Your task to perform on an android device: Go to Google maps Image 0: 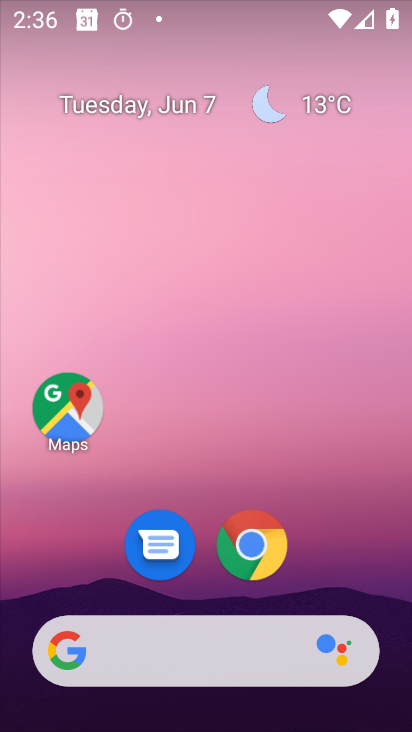
Step 0: click (77, 400)
Your task to perform on an android device: Go to Google maps Image 1: 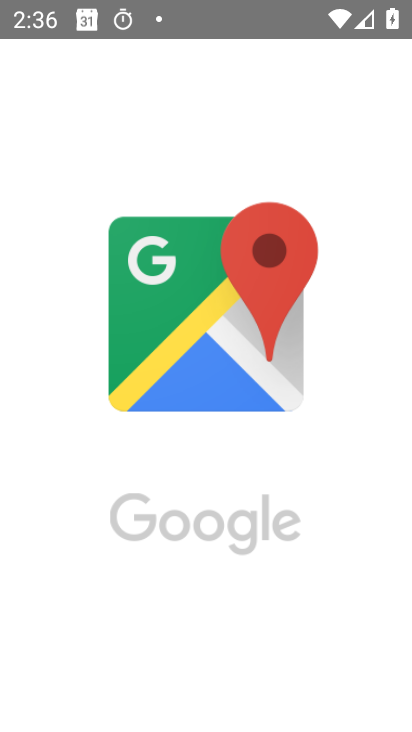
Step 1: task complete